Your task to perform on an android device: toggle show notifications on the lock screen Image 0: 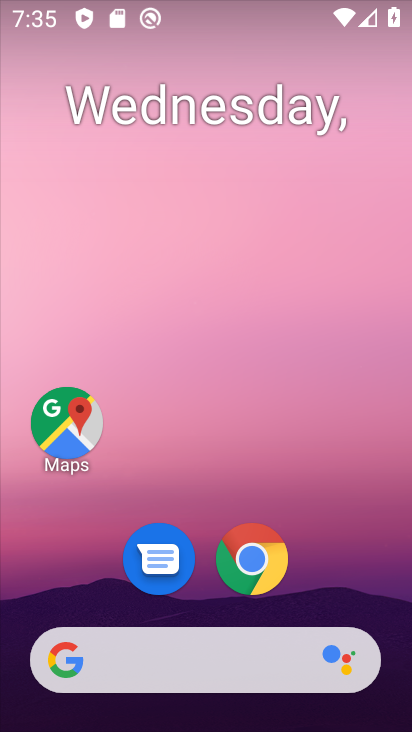
Step 0: drag from (366, 575) to (356, 3)
Your task to perform on an android device: toggle show notifications on the lock screen Image 1: 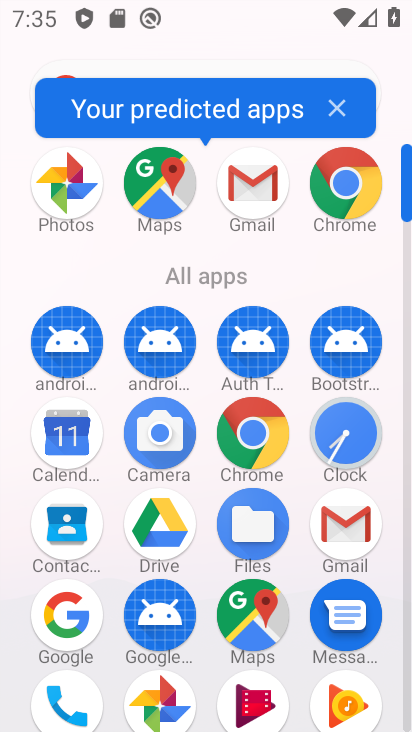
Step 1: drag from (410, 506) to (406, 471)
Your task to perform on an android device: toggle show notifications on the lock screen Image 2: 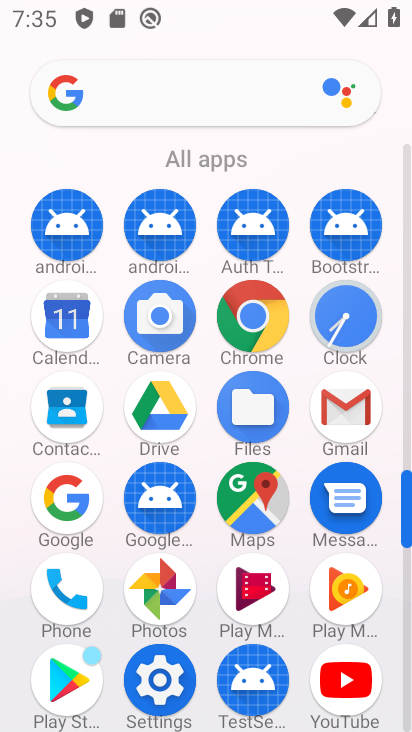
Step 2: click (150, 682)
Your task to perform on an android device: toggle show notifications on the lock screen Image 3: 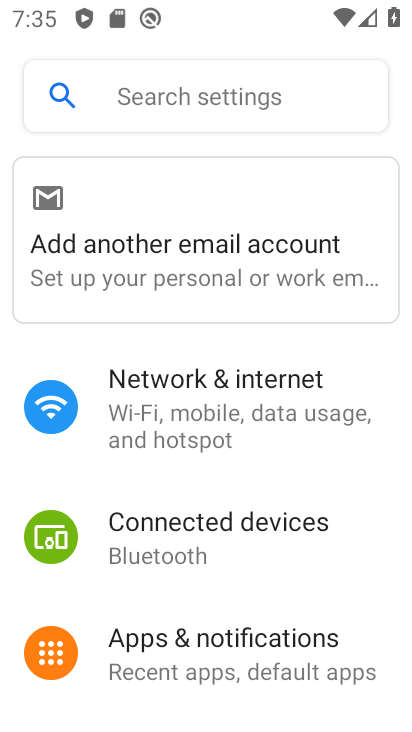
Step 3: click (184, 655)
Your task to perform on an android device: toggle show notifications on the lock screen Image 4: 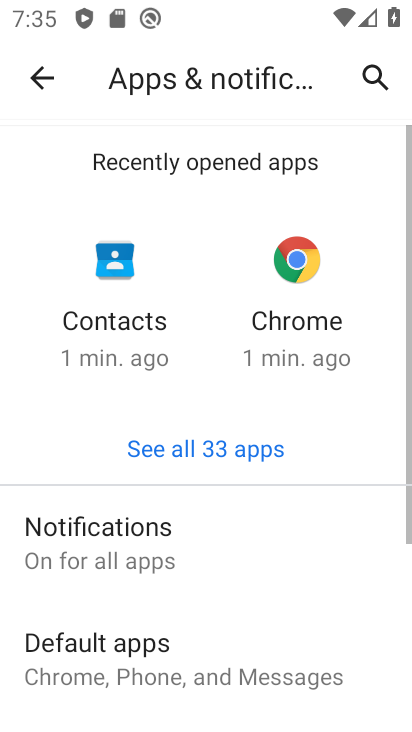
Step 4: click (89, 565)
Your task to perform on an android device: toggle show notifications on the lock screen Image 5: 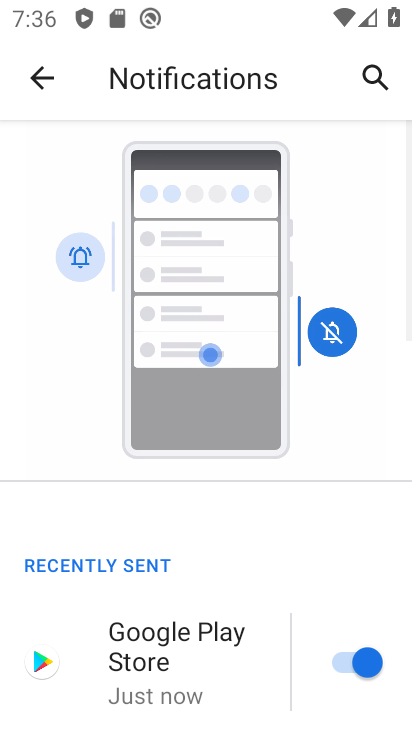
Step 5: drag from (192, 656) to (162, 141)
Your task to perform on an android device: toggle show notifications on the lock screen Image 6: 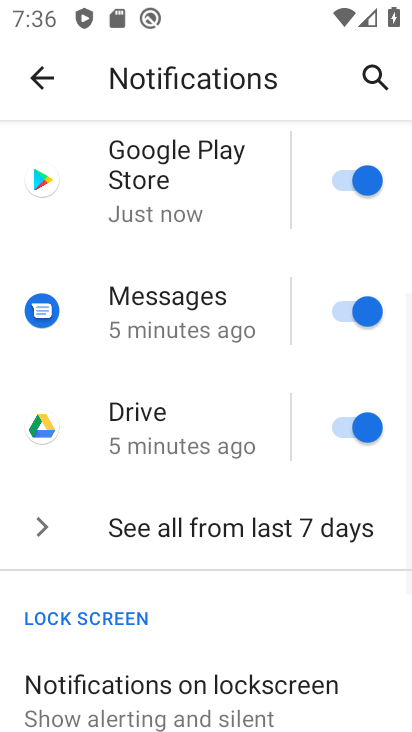
Step 6: drag from (174, 543) to (155, 30)
Your task to perform on an android device: toggle show notifications on the lock screen Image 7: 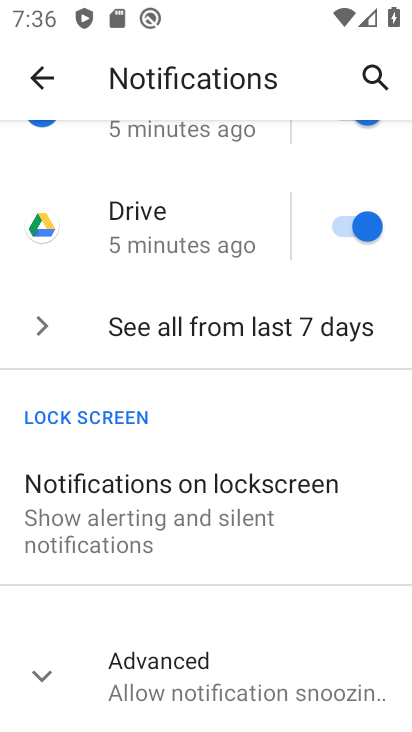
Step 7: click (105, 537)
Your task to perform on an android device: toggle show notifications on the lock screen Image 8: 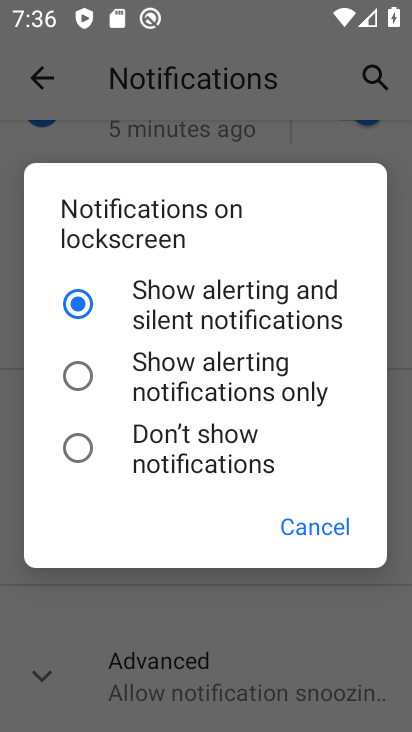
Step 8: click (63, 453)
Your task to perform on an android device: toggle show notifications on the lock screen Image 9: 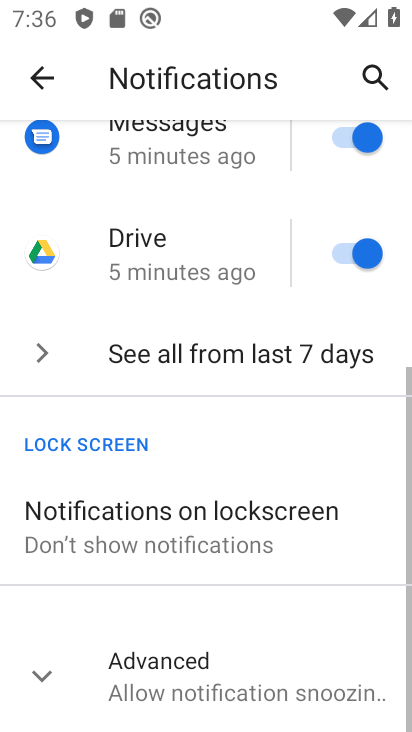
Step 9: task complete